Your task to perform on an android device: toggle sleep mode Image 0: 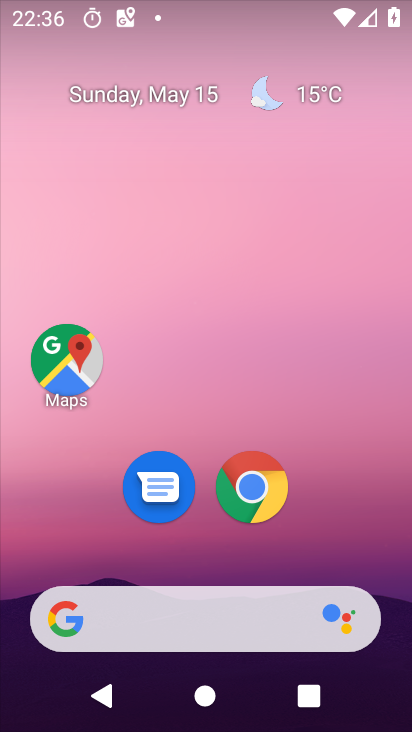
Step 0: drag from (340, 587) to (115, 15)
Your task to perform on an android device: toggle sleep mode Image 1: 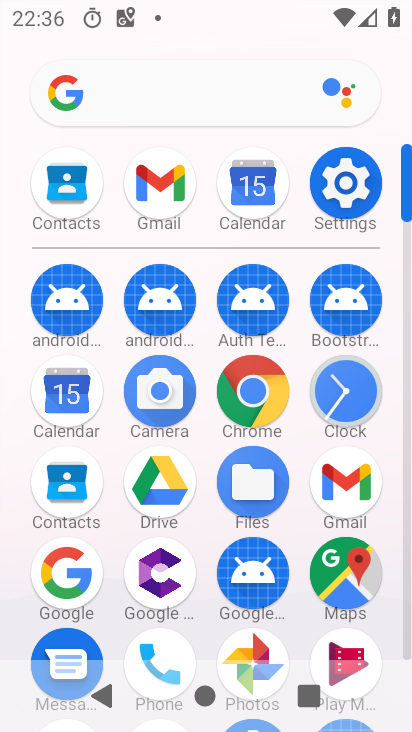
Step 1: click (360, 206)
Your task to perform on an android device: toggle sleep mode Image 2: 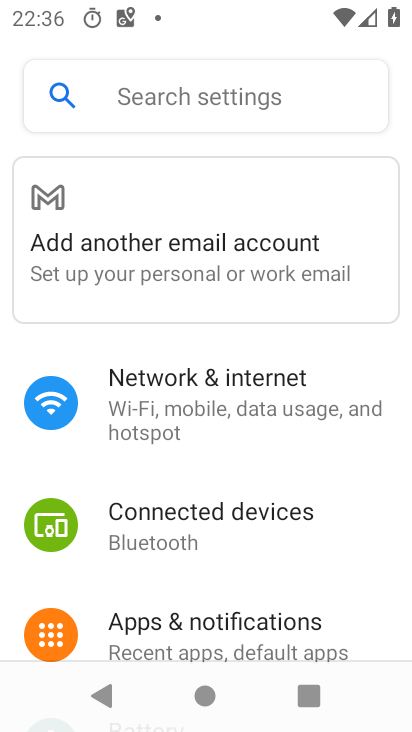
Step 2: drag from (337, 371) to (380, 227)
Your task to perform on an android device: toggle sleep mode Image 3: 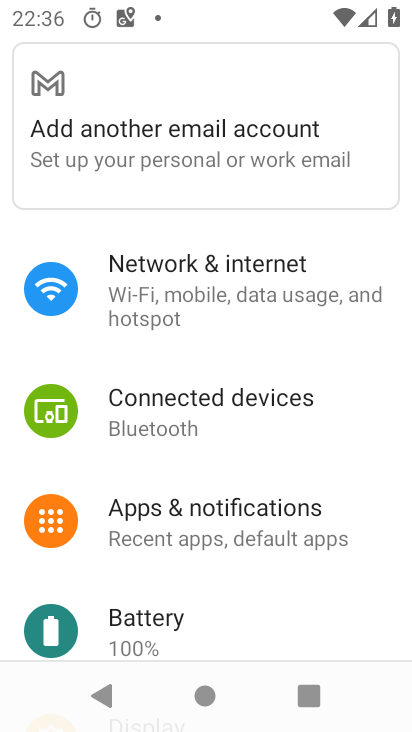
Step 3: drag from (324, 585) to (396, 339)
Your task to perform on an android device: toggle sleep mode Image 4: 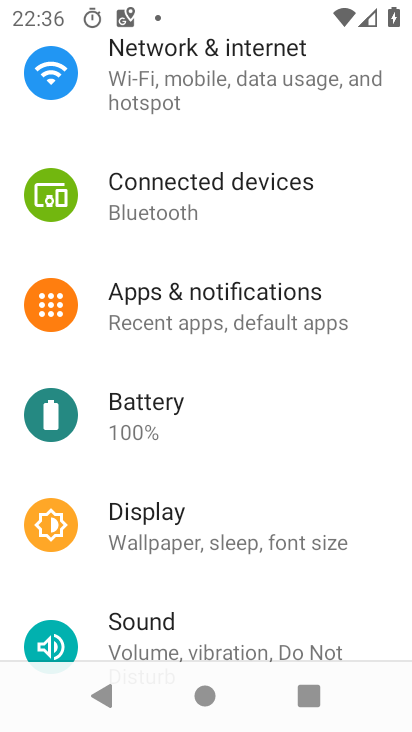
Step 4: drag from (341, 538) to (402, 310)
Your task to perform on an android device: toggle sleep mode Image 5: 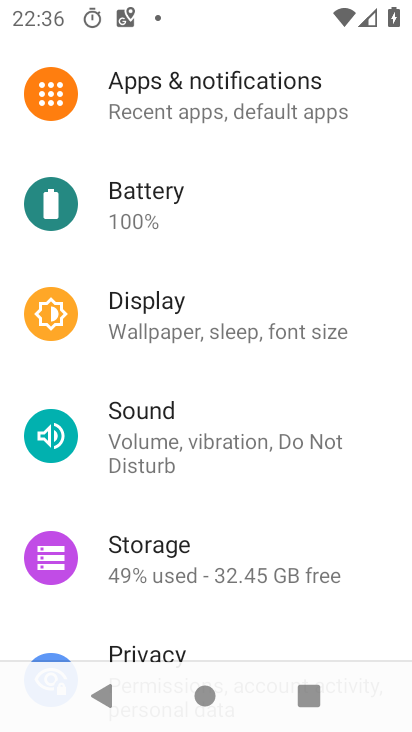
Step 5: click (152, 295)
Your task to perform on an android device: toggle sleep mode Image 6: 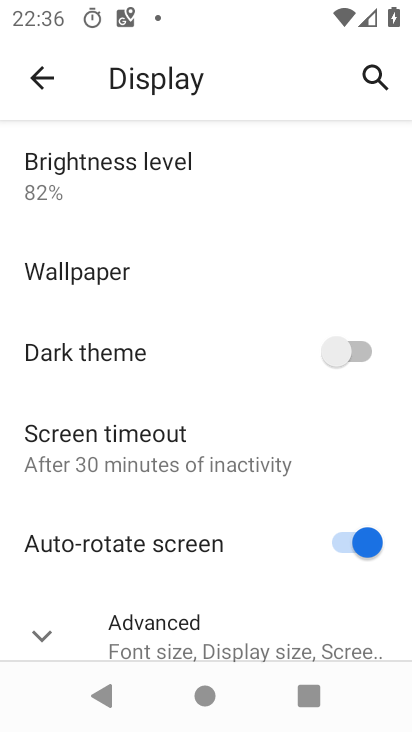
Step 6: click (149, 440)
Your task to perform on an android device: toggle sleep mode Image 7: 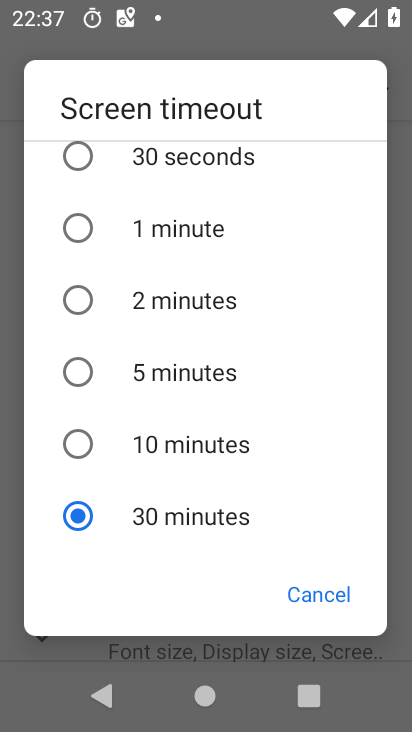
Step 7: click (75, 439)
Your task to perform on an android device: toggle sleep mode Image 8: 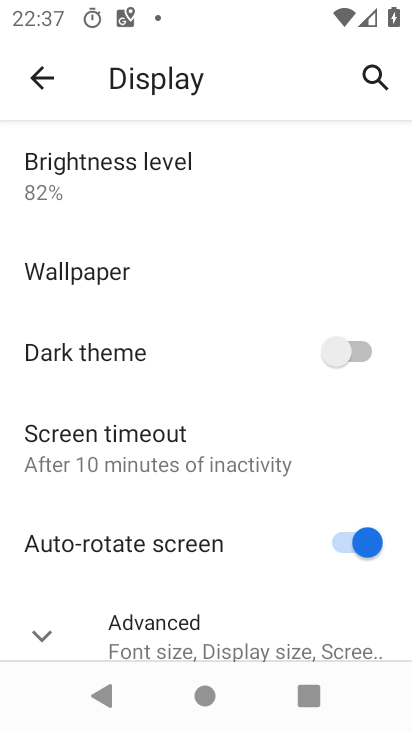
Step 8: task complete